Your task to perform on an android device: turn on the 24-hour format for clock Image 0: 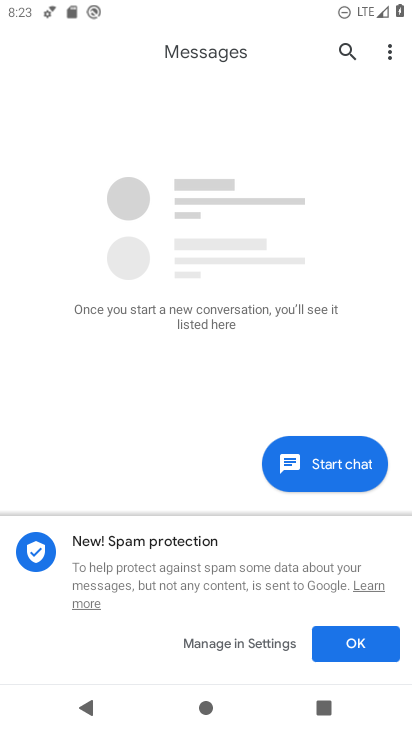
Step 0: press home button
Your task to perform on an android device: turn on the 24-hour format for clock Image 1: 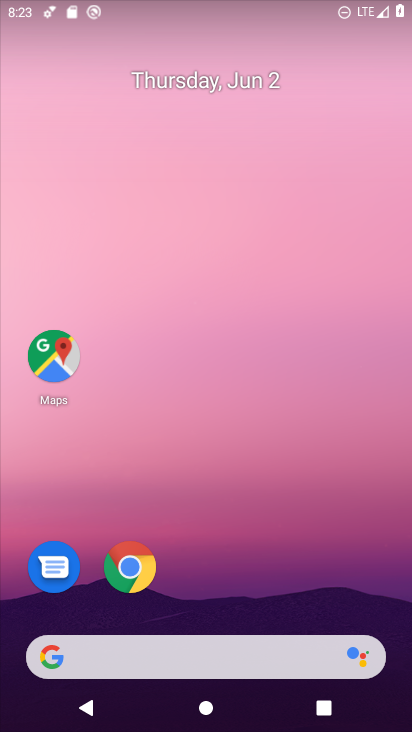
Step 1: drag from (194, 619) to (319, 162)
Your task to perform on an android device: turn on the 24-hour format for clock Image 2: 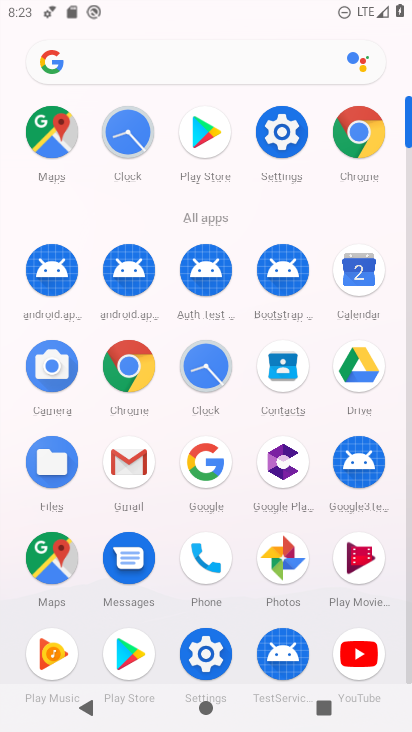
Step 2: click (206, 360)
Your task to perform on an android device: turn on the 24-hour format for clock Image 3: 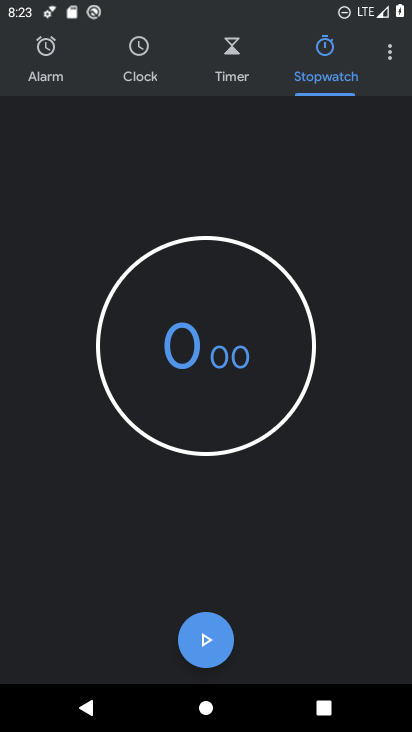
Step 3: click (398, 62)
Your task to perform on an android device: turn on the 24-hour format for clock Image 4: 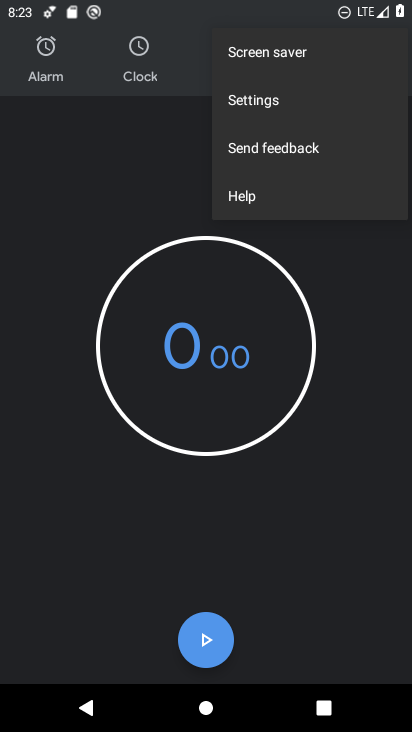
Step 4: click (364, 108)
Your task to perform on an android device: turn on the 24-hour format for clock Image 5: 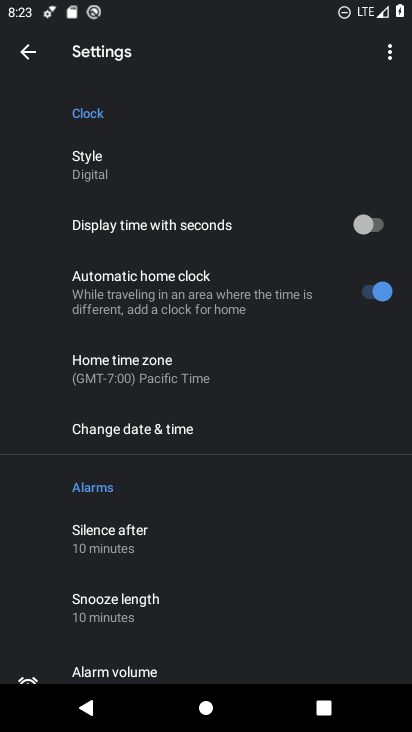
Step 5: drag from (205, 548) to (278, 252)
Your task to perform on an android device: turn on the 24-hour format for clock Image 6: 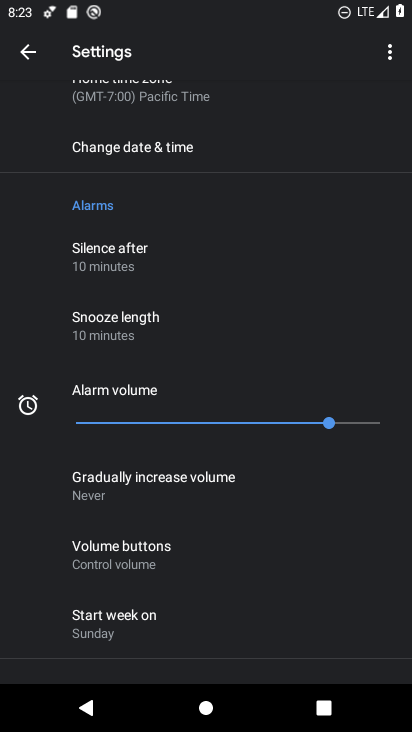
Step 6: drag from (254, 315) to (207, 621)
Your task to perform on an android device: turn on the 24-hour format for clock Image 7: 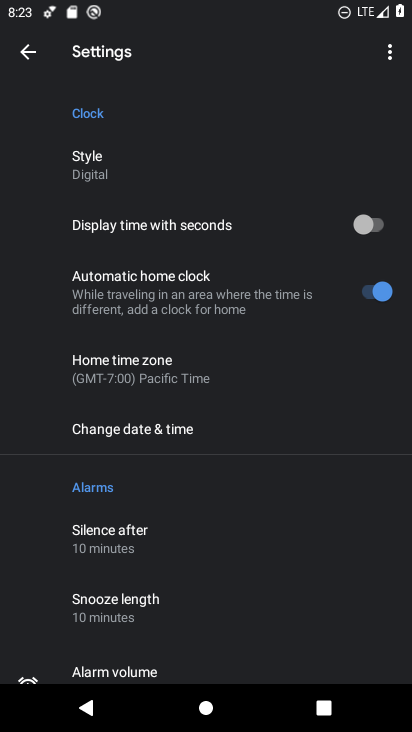
Step 7: click (220, 442)
Your task to perform on an android device: turn on the 24-hour format for clock Image 8: 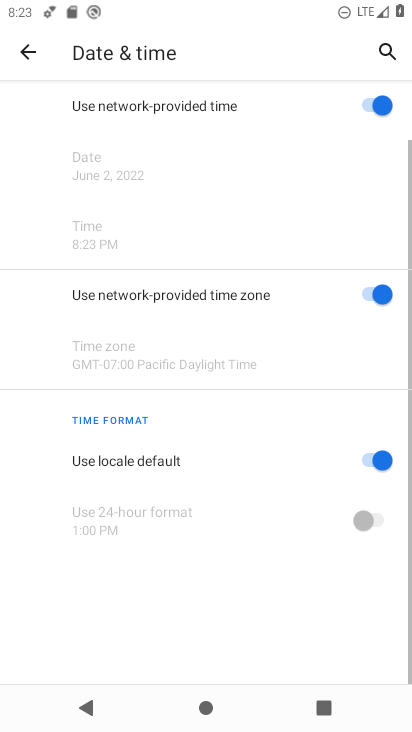
Step 8: drag from (185, 621) to (281, 265)
Your task to perform on an android device: turn on the 24-hour format for clock Image 9: 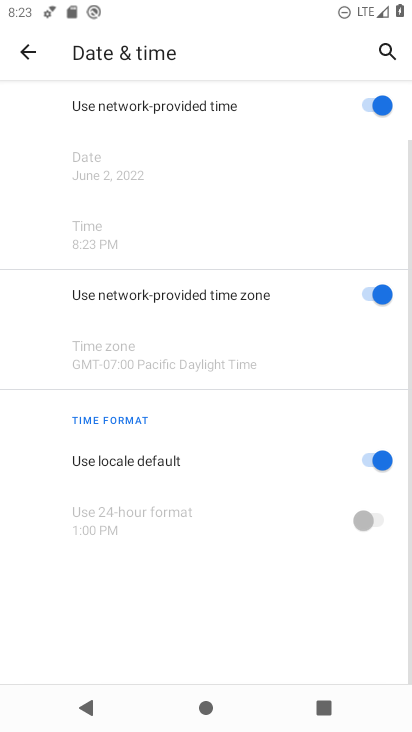
Step 9: click (381, 461)
Your task to perform on an android device: turn on the 24-hour format for clock Image 10: 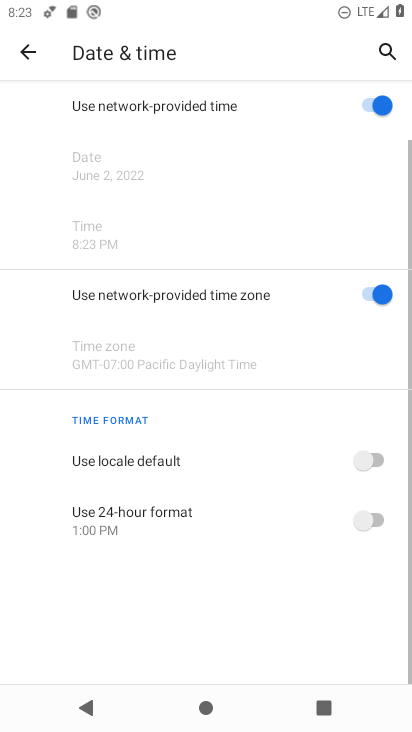
Step 10: click (375, 515)
Your task to perform on an android device: turn on the 24-hour format for clock Image 11: 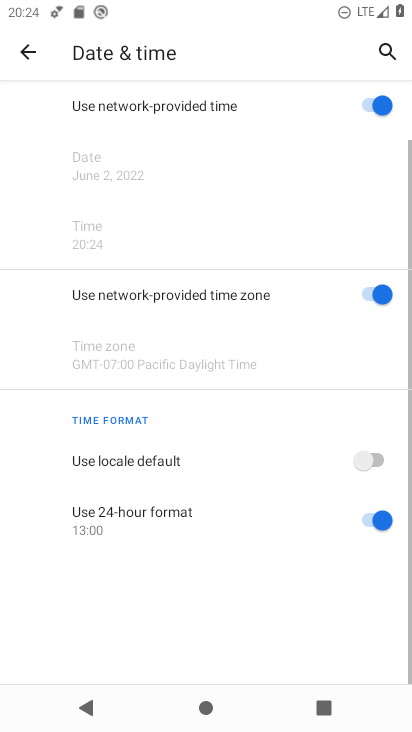
Step 11: task complete